Your task to perform on an android device: What's the weather today? Image 0: 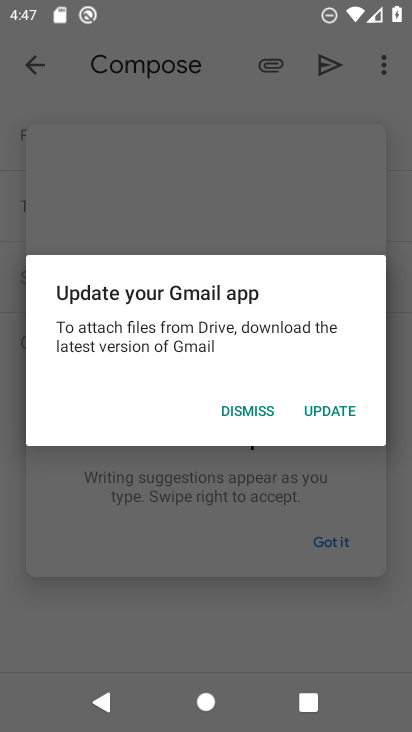
Step 0: press home button
Your task to perform on an android device: What's the weather today? Image 1: 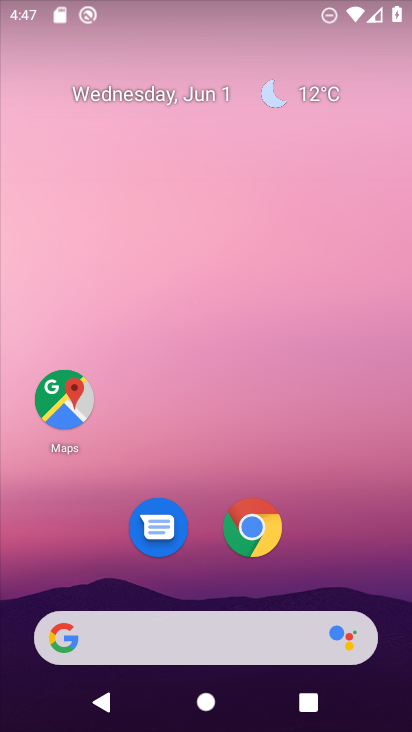
Step 1: click (219, 648)
Your task to perform on an android device: What's the weather today? Image 2: 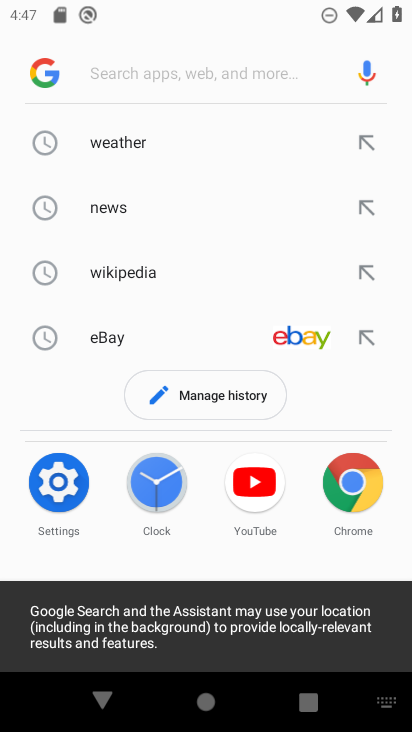
Step 2: click (92, 144)
Your task to perform on an android device: What's the weather today? Image 3: 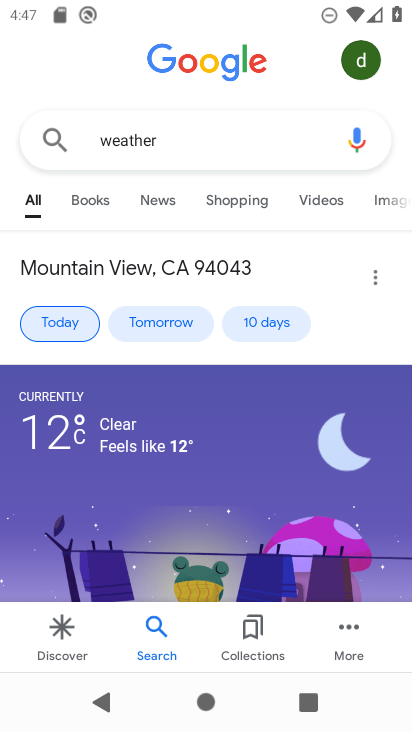
Step 3: task complete